Your task to perform on an android device: turn off airplane mode Image 0: 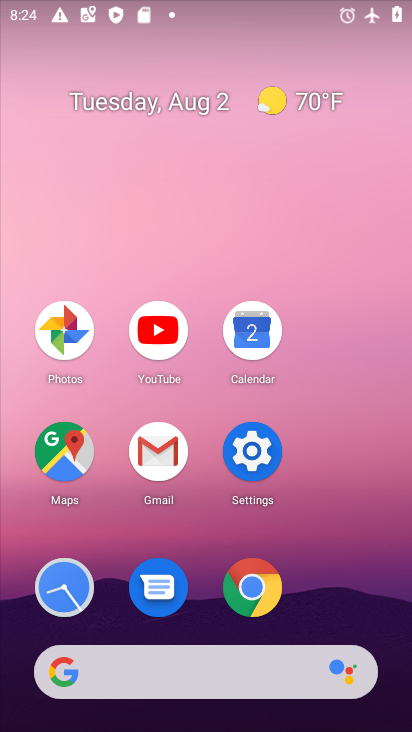
Step 0: click (251, 459)
Your task to perform on an android device: turn off airplane mode Image 1: 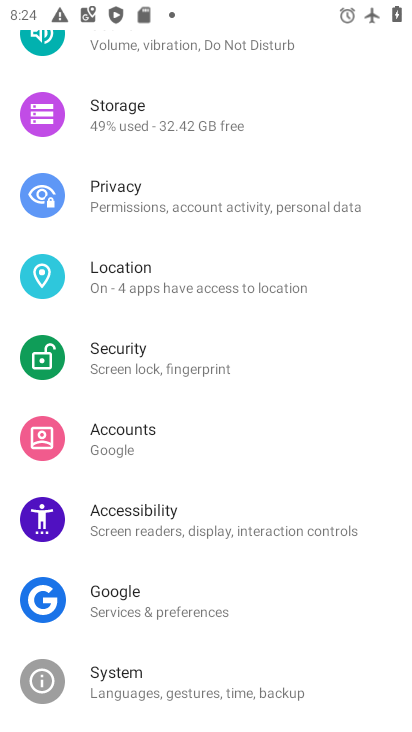
Step 1: drag from (289, 158) to (279, 609)
Your task to perform on an android device: turn off airplane mode Image 2: 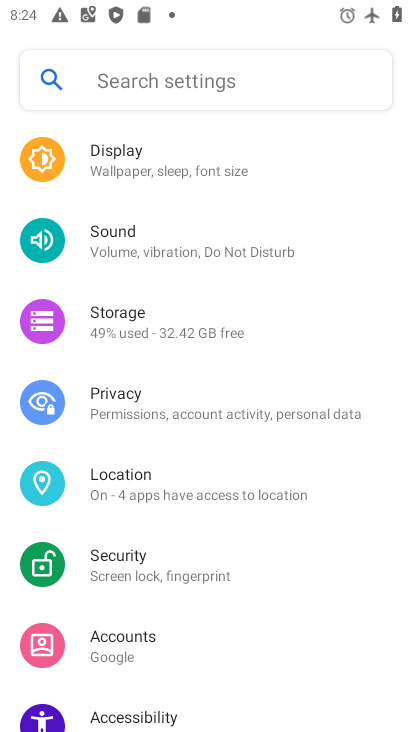
Step 2: drag from (263, 196) to (212, 613)
Your task to perform on an android device: turn off airplane mode Image 3: 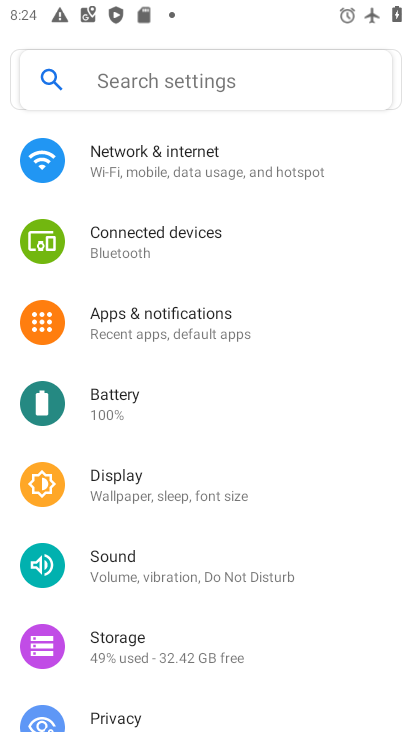
Step 3: click (156, 157)
Your task to perform on an android device: turn off airplane mode Image 4: 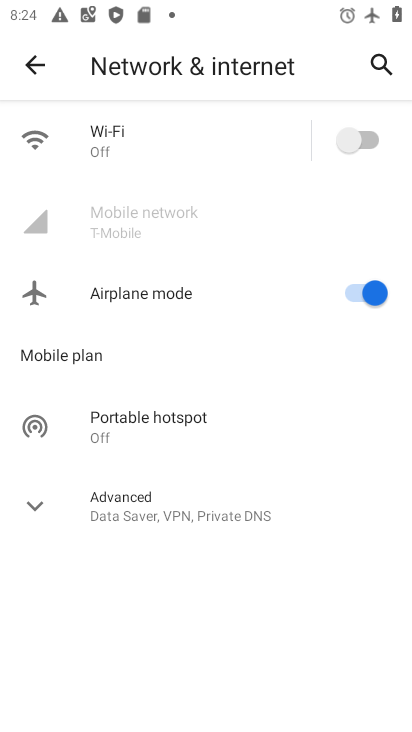
Step 4: click (372, 288)
Your task to perform on an android device: turn off airplane mode Image 5: 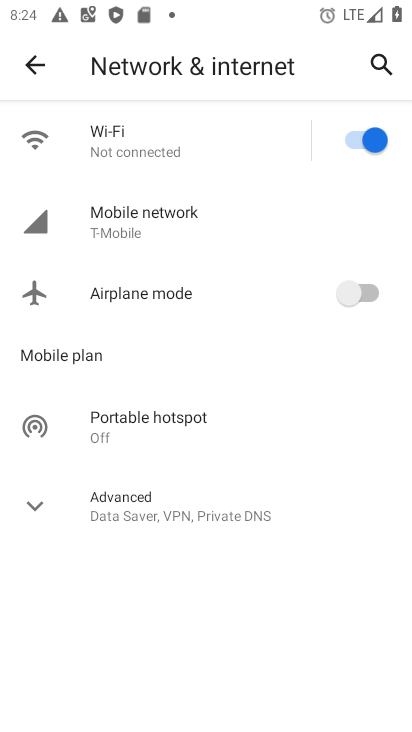
Step 5: task complete